Your task to perform on an android device: delete location history Image 0: 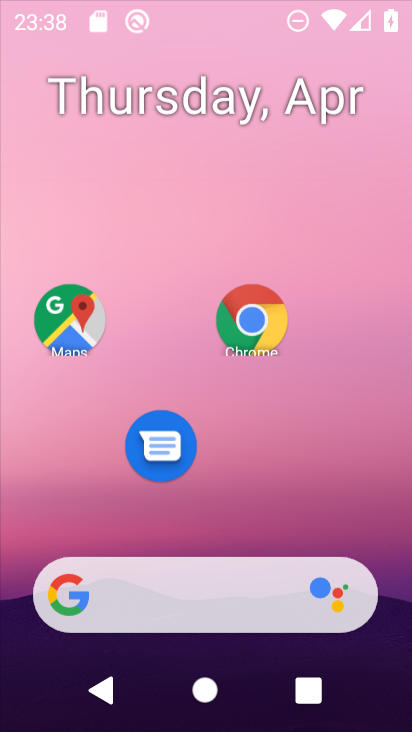
Step 0: click (215, 124)
Your task to perform on an android device: delete location history Image 1: 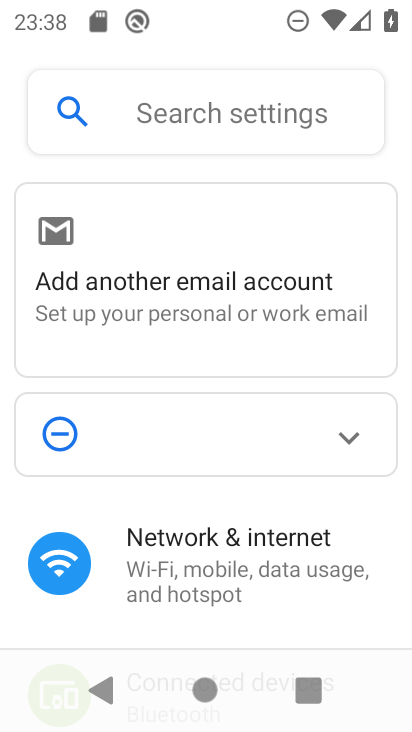
Step 1: drag from (197, 545) to (242, 142)
Your task to perform on an android device: delete location history Image 2: 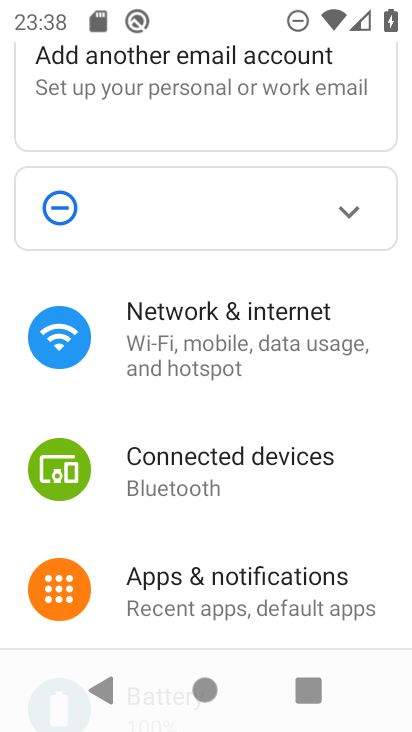
Step 2: drag from (226, 561) to (260, 219)
Your task to perform on an android device: delete location history Image 3: 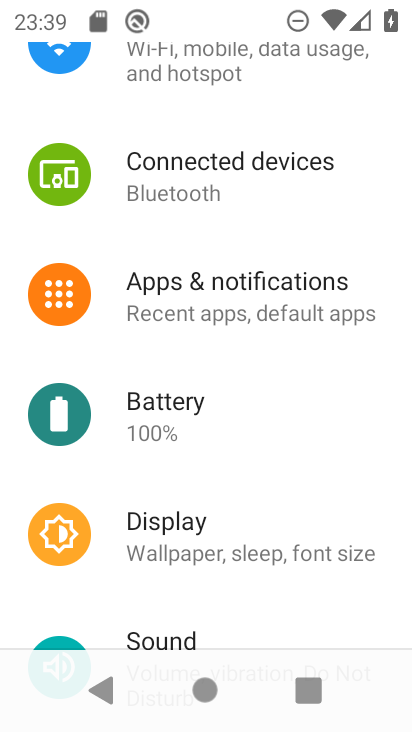
Step 3: drag from (194, 545) to (205, 180)
Your task to perform on an android device: delete location history Image 4: 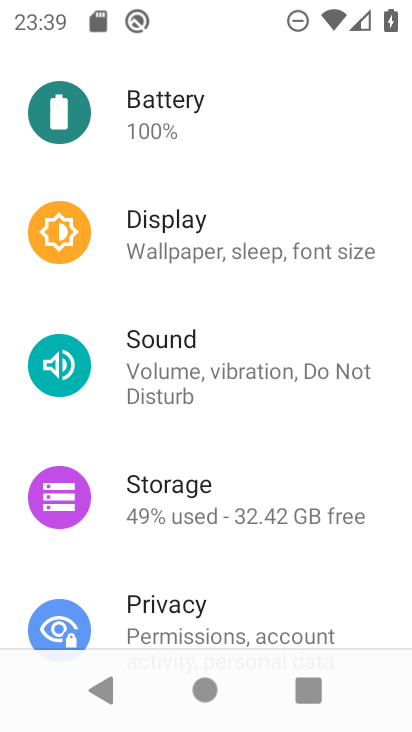
Step 4: drag from (236, 560) to (238, 191)
Your task to perform on an android device: delete location history Image 5: 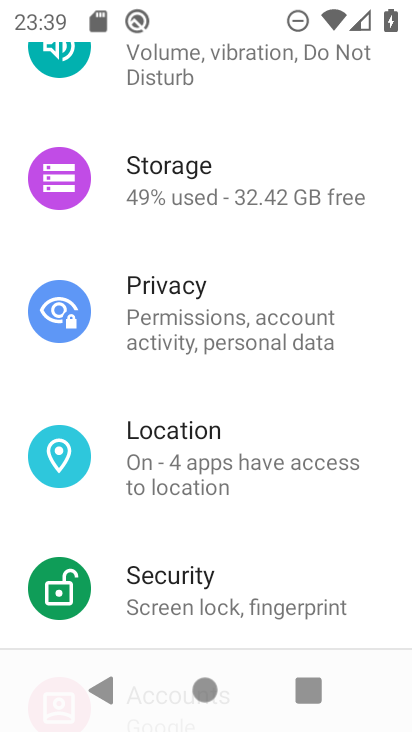
Step 5: click (209, 453)
Your task to perform on an android device: delete location history Image 6: 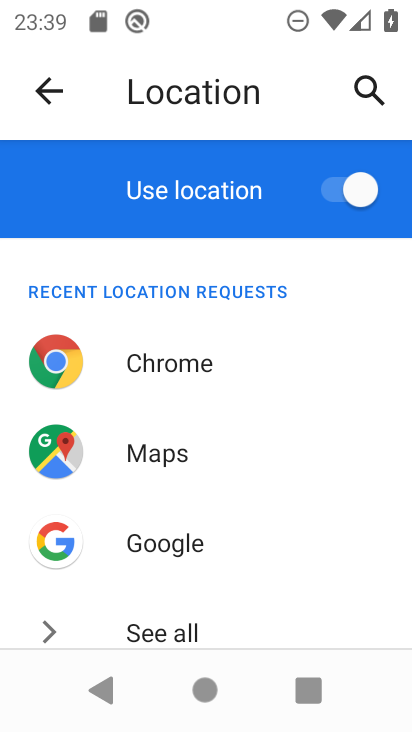
Step 6: drag from (187, 532) to (255, 170)
Your task to perform on an android device: delete location history Image 7: 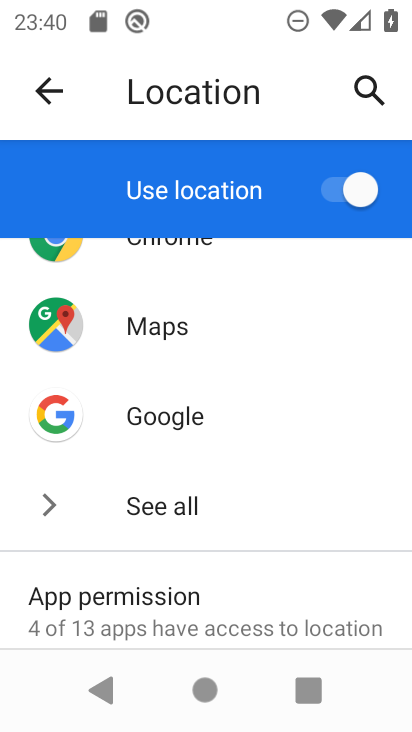
Step 7: drag from (148, 513) to (191, 234)
Your task to perform on an android device: delete location history Image 8: 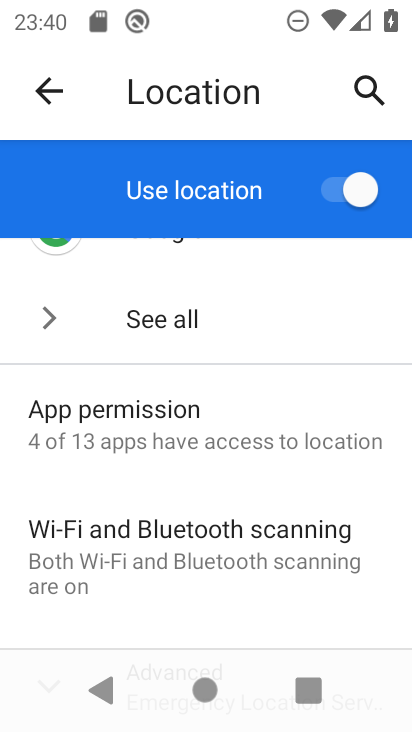
Step 8: drag from (228, 501) to (264, 162)
Your task to perform on an android device: delete location history Image 9: 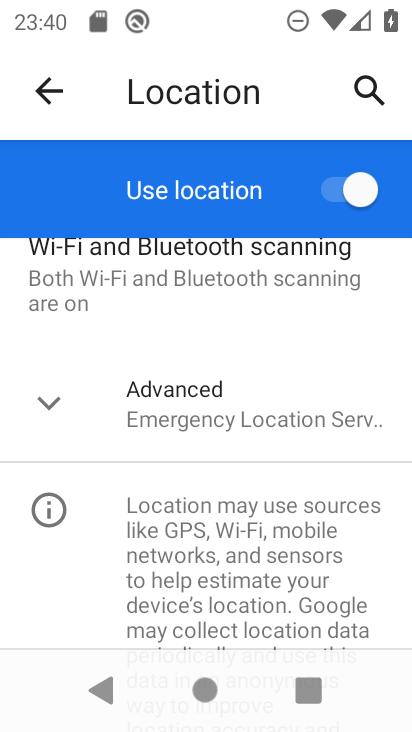
Step 9: drag from (245, 378) to (311, 728)
Your task to perform on an android device: delete location history Image 10: 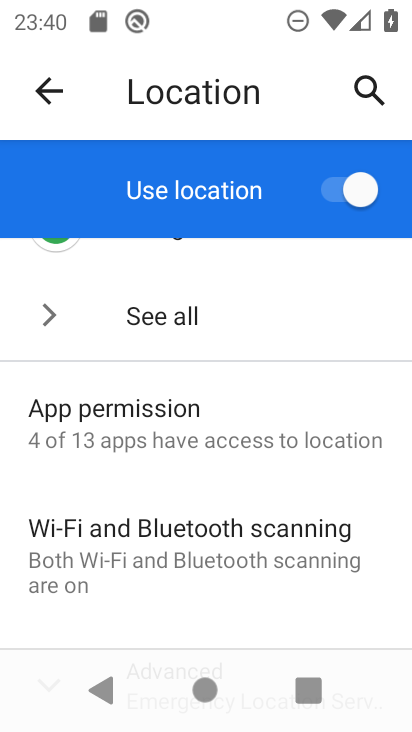
Step 10: drag from (252, 558) to (326, 144)
Your task to perform on an android device: delete location history Image 11: 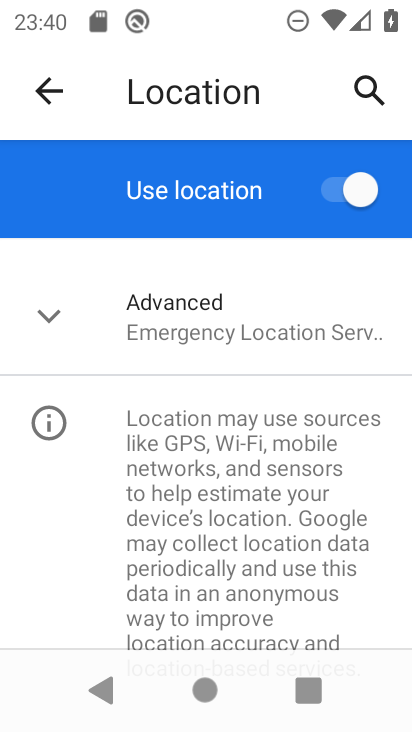
Step 11: click (147, 327)
Your task to perform on an android device: delete location history Image 12: 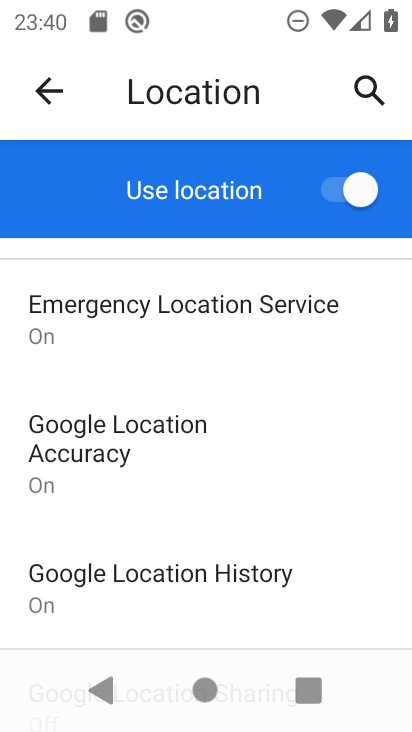
Step 12: drag from (229, 565) to (274, 375)
Your task to perform on an android device: delete location history Image 13: 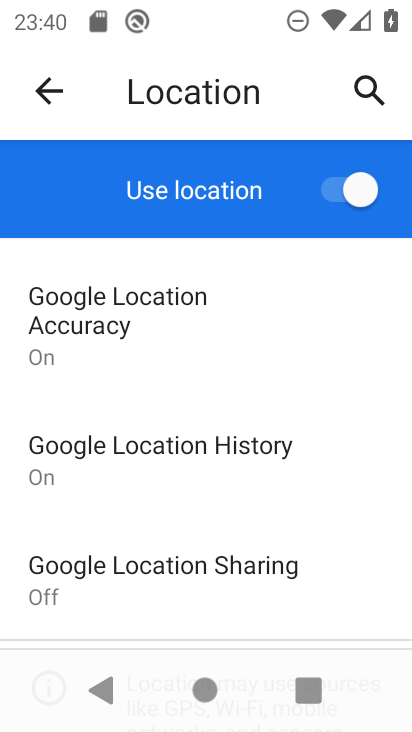
Step 13: click (132, 472)
Your task to perform on an android device: delete location history Image 14: 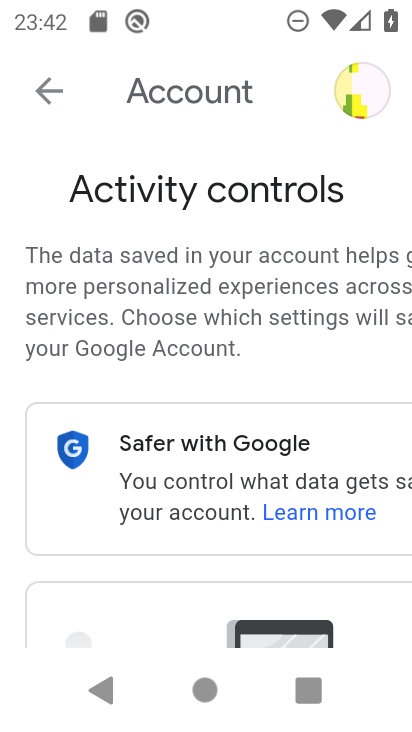
Step 14: drag from (215, 544) to (224, 124)
Your task to perform on an android device: delete location history Image 15: 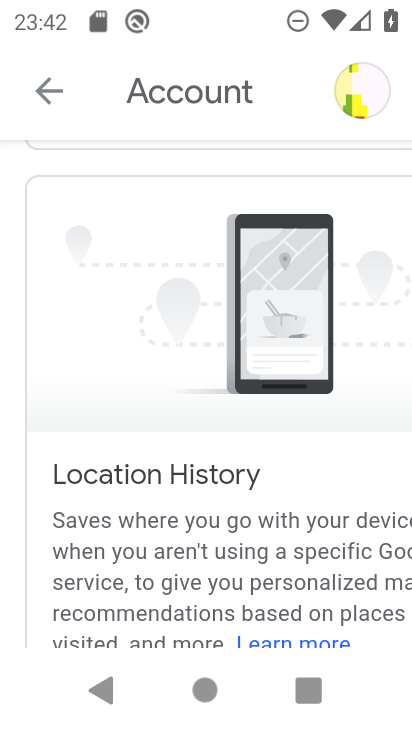
Step 15: drag from (216, 462) to (241, 116)
Your task to perform on an android device: delete location history Image 16: 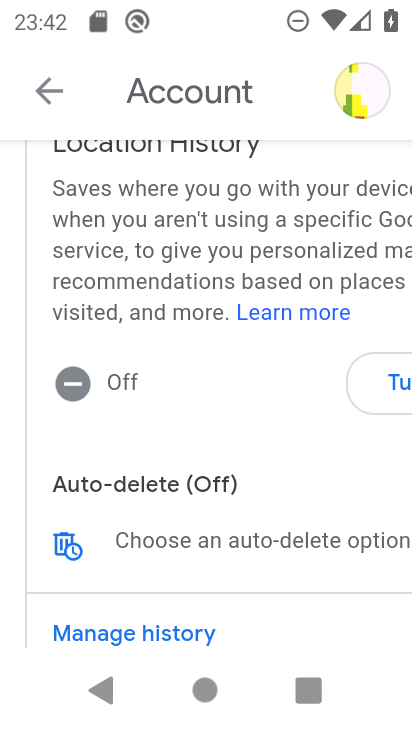
Step 16: drag from (246, 550) to (250, 176)
Your task to perform on an android device: delete location history Image 17: 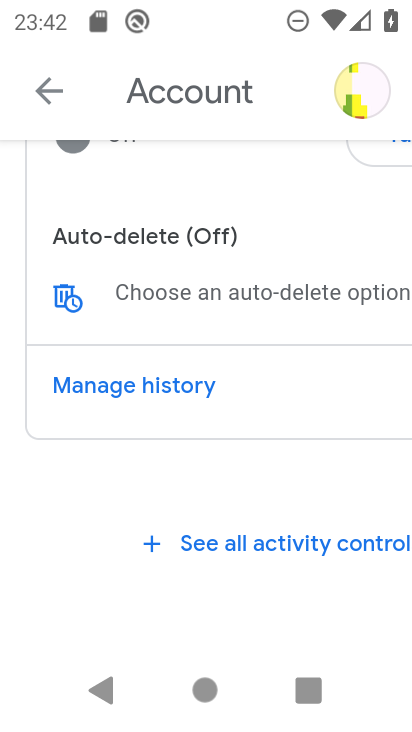
Step 17: click (69, 301)
Your task to perform on an android device: delete location history Image 18: 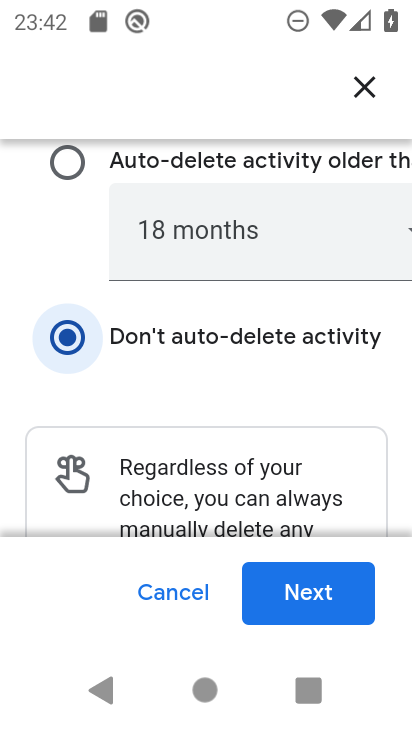
Step 18: click (300, 582)
Your task to perform on an android device: delete location history Image 19: 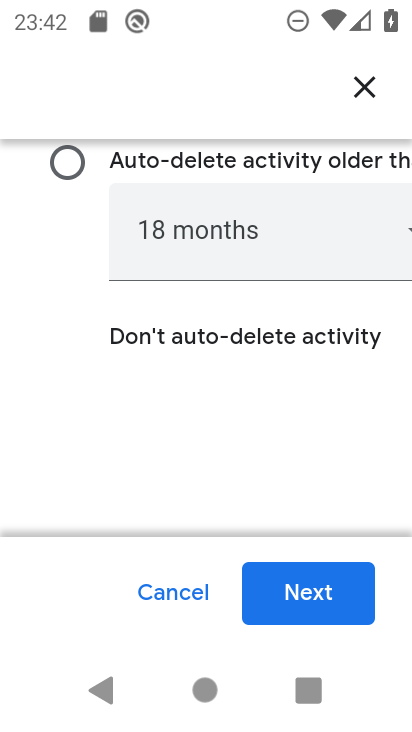
Step 19: click (301, 580)
Your task to perform on an android device: delete location history Image 20: 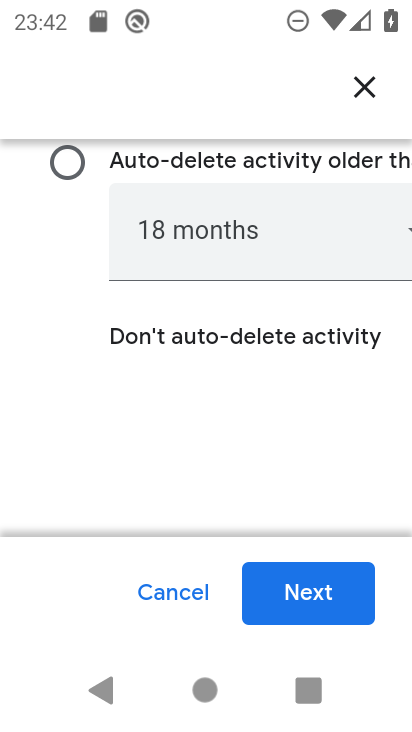
Step 20: click (301, 580)
Your task to perform on an android device: delete location history Image 21: 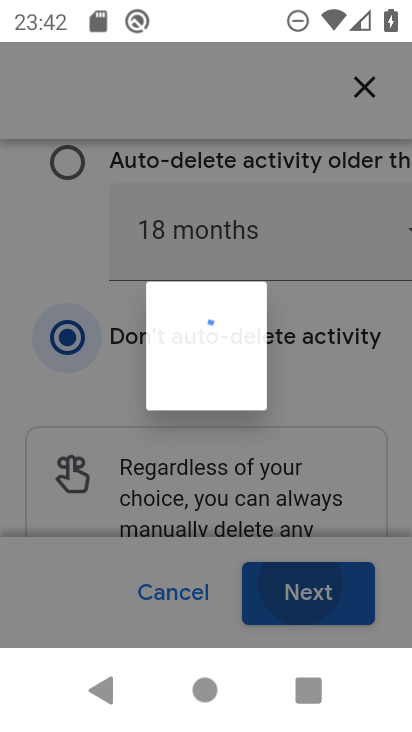
Step 21: click (301, 580)
Your task to perform on an android device: delete location history Image 22: 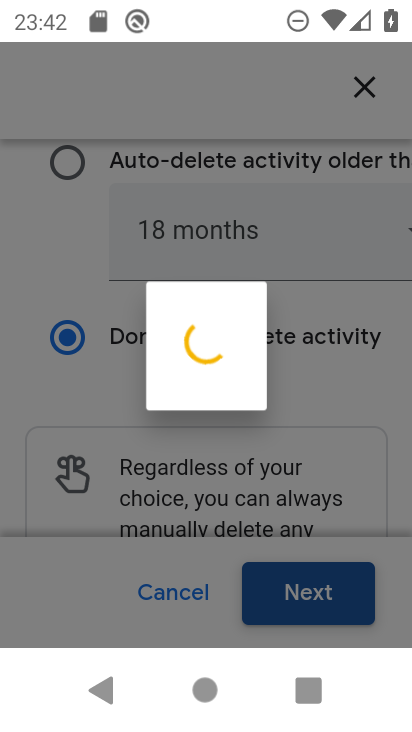
Step 22: click (301, 580)
Your task to perform on an android device: delete location history Image 23: 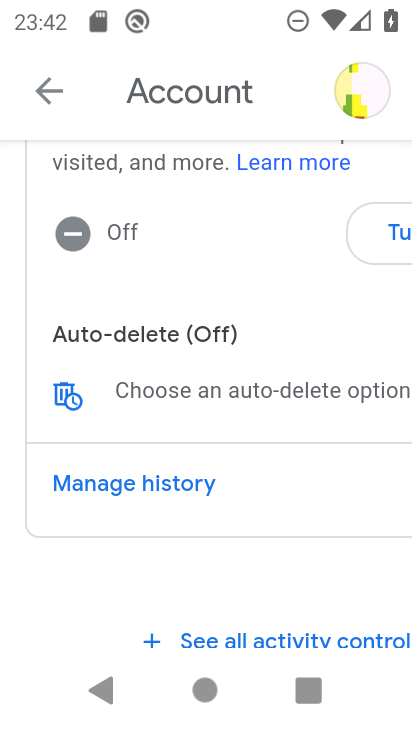
Step 23: task complete